Your task to perform on an android device: open app "NewsBreak: Local News & Alerts" (install if not already installed) Image 0: 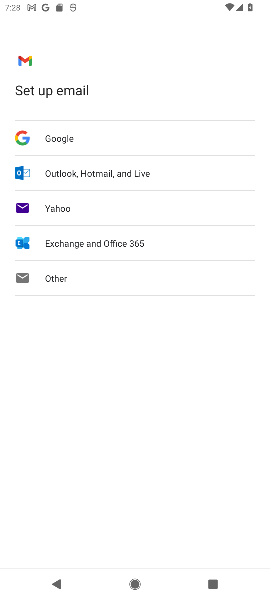
Step 0: press back button
Your task to perform on an android device: open app "NewsBreak: Local News & Alerts" (install if not already installed) Image 1: 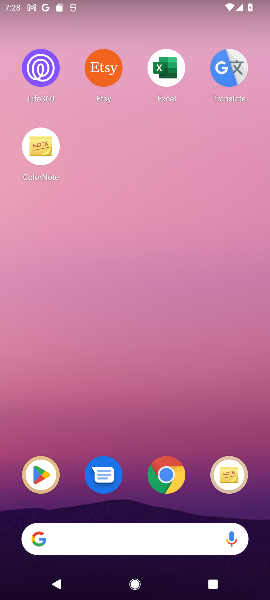
Step 1: drag from (135, 516) to (126, 19)
Your task to perform on an android device: open app "NewsBreak: Local News & Alerts" (install if not already installed) Image 2: 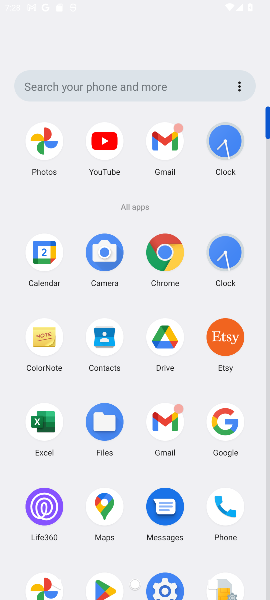
Step 2: click (96, 61)
Your task to perform on an android device: open app "NewsBreak: Local News & Alerts" (install if not already installed) Image 3: 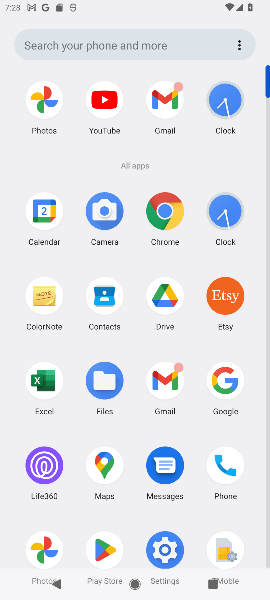
Step 3: drag from (134, 284) to (111, 71)
Your task to perform on an android device: open app "NewsBreak: Local News & Alerts" (install if not already installed) Image 4: 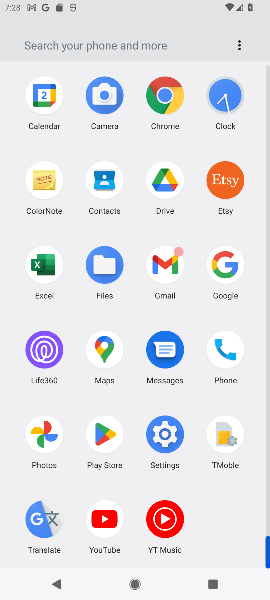
Step 4: click (97, 432)
Your task to perform on an android device: open app "NewsBreak: Local News & Alerts" (install if not already installed) Image 5: 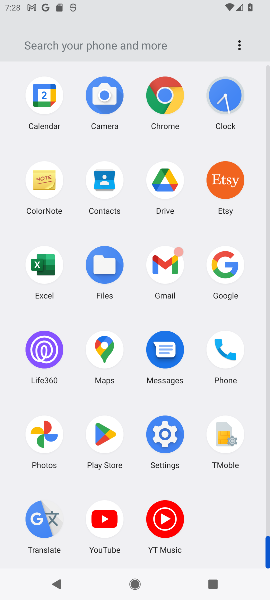
Step 5: click (97, 432)
Your task to perform on an android device: open app "NewsBreak: Local News & Alerts" (install if not already installed) Image 6: 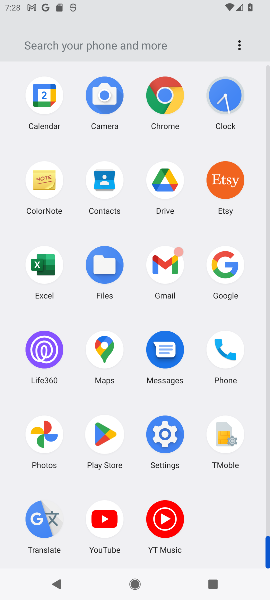
Step 6: click (97, 433)
Your task to perform on an android device: open app "NewsBreak: Local News & Alerts" (install if not already installed) Image 7: 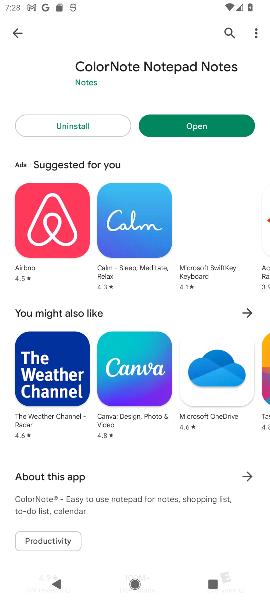
Step 7: click (99, 435)
Your task to perform on an android device: open app "NewsBreak: Local News & Alerts" (install if not already installed) Image 8: 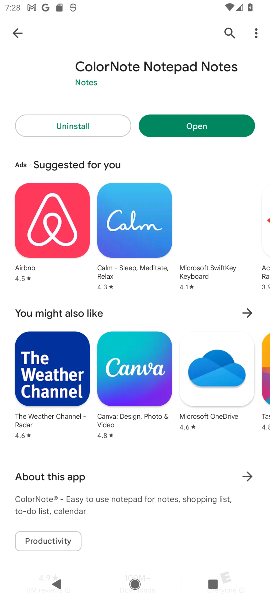
Step 8: click (100, 436)
Your task to perform on an android device: open app "NewsBreak: Local News & Alerts" (install if not already installed) Image 9: 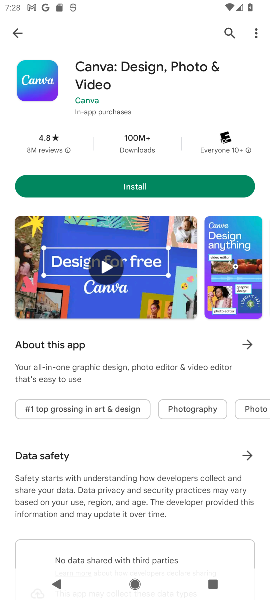
Step 9: click (15, 34)
Your task to perform on an android device: open app "NewsBreak: Local News & Alerts" (install if not already installed) Image 10: 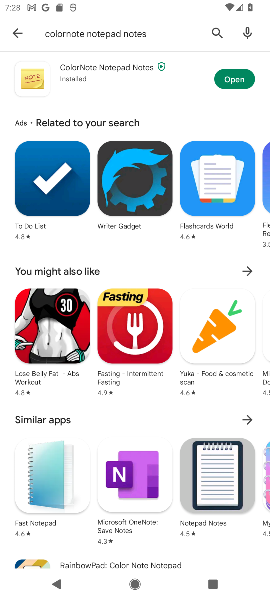
Step 10: click (12, 28)
Your task to perform on an android device: open app "NewsBreak: Local News & Alerts" (install if not already installed) Image 11: 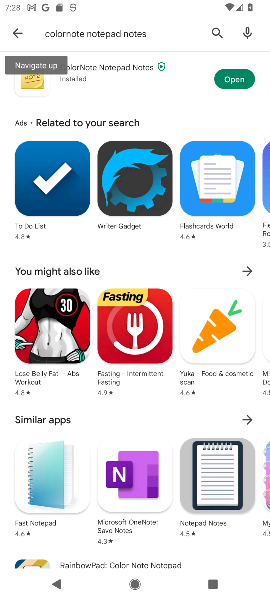
Step 11: click (18, 25)
Your task to perform on an android device: open app "NewsBreak: Local News & Alerts" (install if not already installed) Image 12: 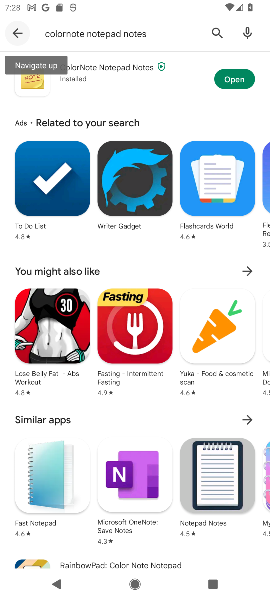
Step 12: click (14, 32)
Your task to perform on an android device: open app "NewsBreak: Local News & Alerts" (install if not already installed) Image 13: 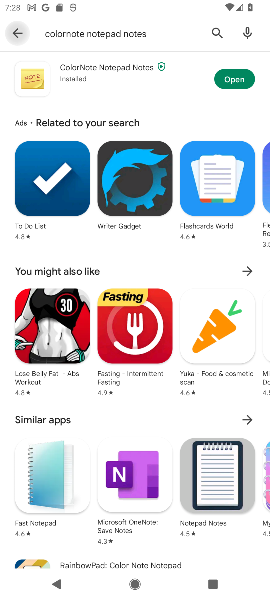
Step 13: click (18, 33)
Your task to perform on an android device: open app "NewsBreak: Local News & Alerts" (install if not already installed) Image 14: 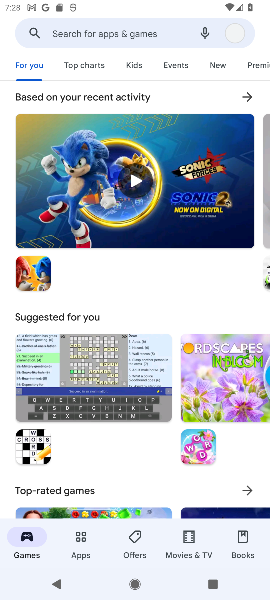
Step 14: click (17, 32)
Your task to perform on an android device: open app "NewsBreak: Local News & Alerts" (install if not already installed) Image 15: 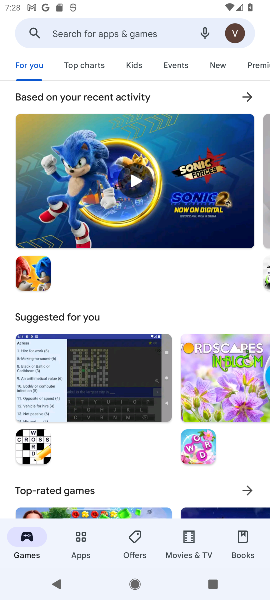
Step 15: click (69, 29)
Your task to perform on an android device: open app "NewsBreak: Local News & Alerts" (install if not already installed) Image 16: 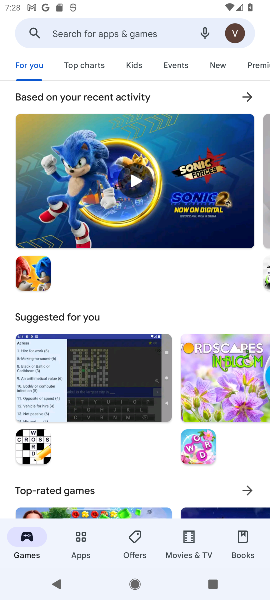
Step 16: click (70, 31)
Your task to perform on an android device: open app "NewsBreak: Local News & Alerts" (install if not already installed) Image 17: 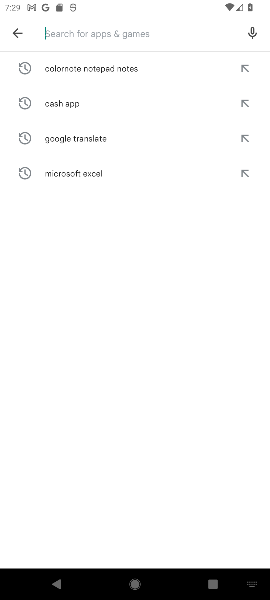
Step 17: type "news break"
Your task to perform on an android device: open app "NewsBreak: Local News & Alerts" (install if not already installed) Image 18: 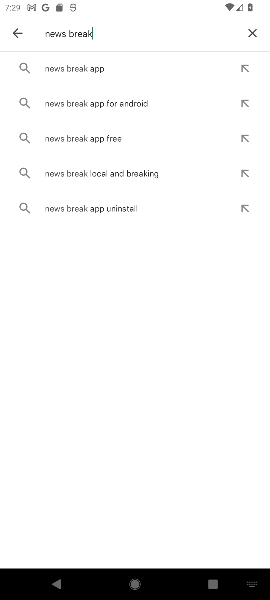
Step 18: click (82, 67)
Your task to perform on an android device: open app "NewsBreak: Local News & Alerts" (install if not already installed) Image 19: 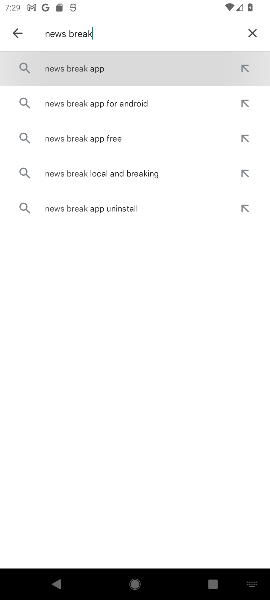
Step 19: click (82, 67)
Your task to perform on an android device: open app "NewsBreak: Local News & Alerts" (install if not already installed) Image 20: 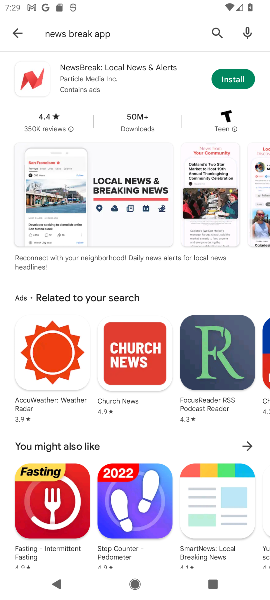
Step 20: click (234, 76)
Your task to perform on an android device: open app "NewsBreak: Local News & Alerts" (install if not already installed) Image 21: 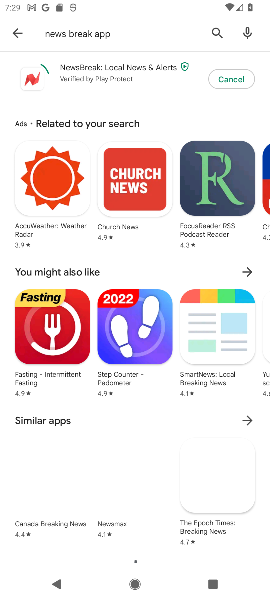
Step 21: click (234, 76)
Your task to perform on an android device: open app "NewsBreak: Local News & Alerts" (install if not already installed) Image 22: 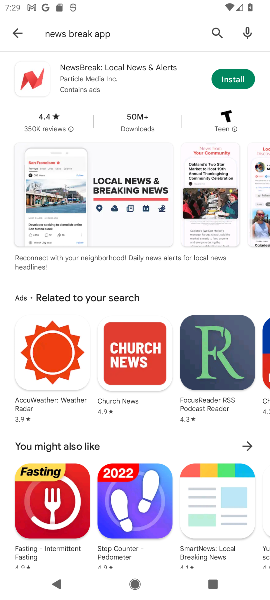
Step 22: click (228, 77)
Your task to perform on an android device: open app "NewsBreak: Local News & Alerts" (install if not already installed) Image 23: 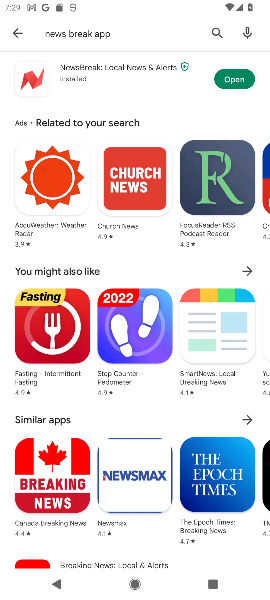
Step 23: click (231, 77)
Your task to perform on an android device: open app "NewsBreak: Local News & Alerts" (install if not already installed) Image 24: 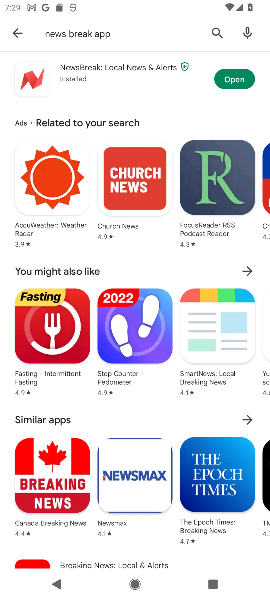
Step 24: click (231, 77)
Your task to perform on an android device: open app "NewsBreak: Local News & Alerts" (install if not already installed) Image 25: 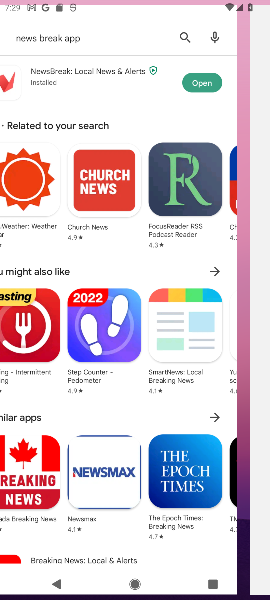
Step 25: click (232, 76)
Your task to perform on an android device: open app "NewsBreak: Local News & Alerts" (install if not already installed) Image 26: 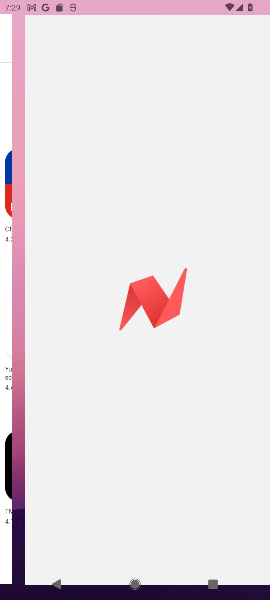
Step 26: click (232, 76)
Your task to perform on an android device: open app "NewsBreak: Local News & Alerts" (install if not already installed) Image 27: 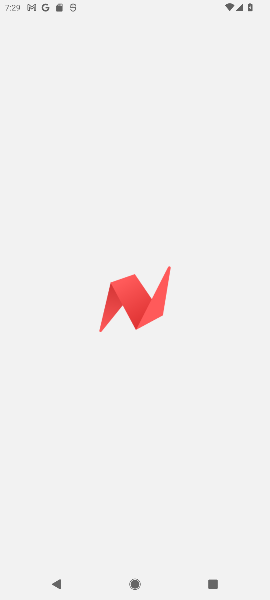
Step 27: click (233, 76)
Your task to perform on an android device: open app "NewsBreak: Local News & Alerts" (install if not already installed) Image 28: 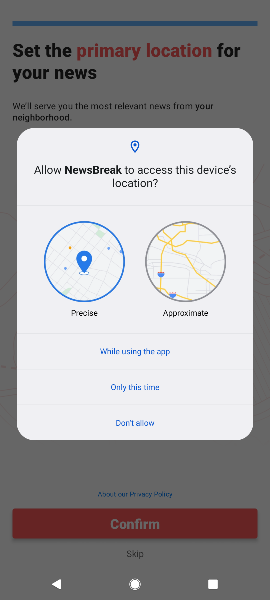
Step 28: click (76, 475)
Your task to perform on an android device: open app "NewsBreak: Local News & Alerts" (install if not already installed) Image 29: 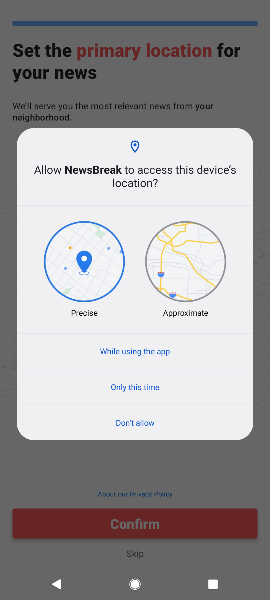
Step 29: click (86, 477)
Your task to perform on an android device: open app "NewsBreak: Local News & Alerts" (install if not already installed) Image 30: 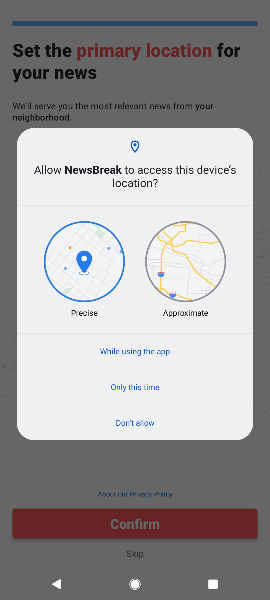
Step 30: click (87, 479)
Your task to perform on an android device: open app "NewsBreak: Local News & Alerts" (install if not already installed) Image 31: 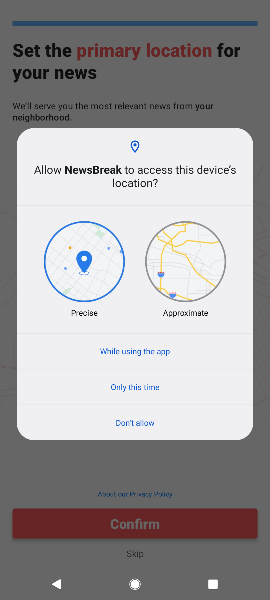
Step 31: click (87, 479)
Your task to perform on an android device: open app "NewsBreak: Local News & Alerts" (install if not already installed) Image 32: 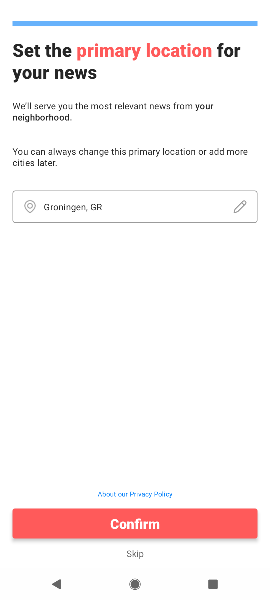
Step 32: click (137, 554)
Your task to perform on an android device: open app "NewsBreak: Local News & Alerts" (install if not already installed) Image 33: 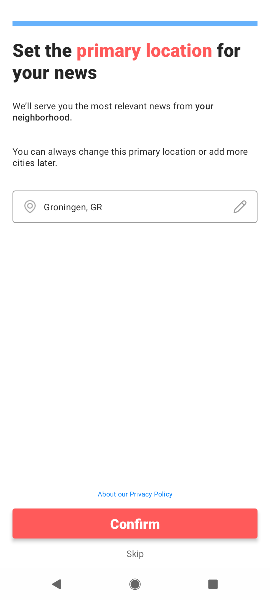
Step 33: click (137, 554)
Your task to perform on an android device: open app "NewsBreak: Local News & Alerts" (install if not already installed) Image 34: 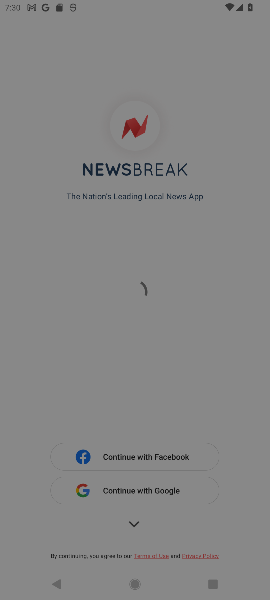
Step 34: click (137, 554)
Your task to perform on an android device: open app "NewsBreak: Local News & Alerts" (install if not already installed) Image 35: 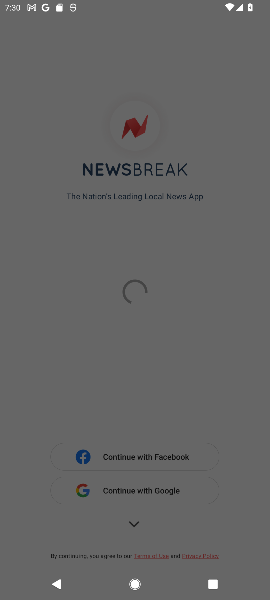
Step 35: click (135, 553)
Your task to perform on an android device: open app "NewsBreak: Local News & Alerts" (install if not already installed) Image 36: 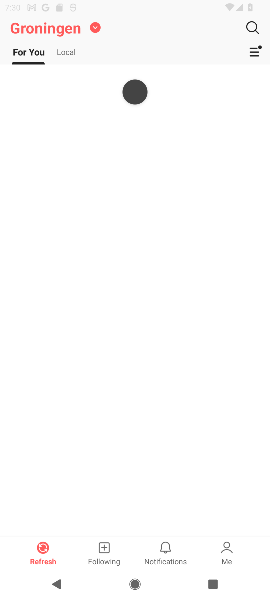
Step 36: task complete